Your task to perform on an android device: Do I have any events today? Image 0: 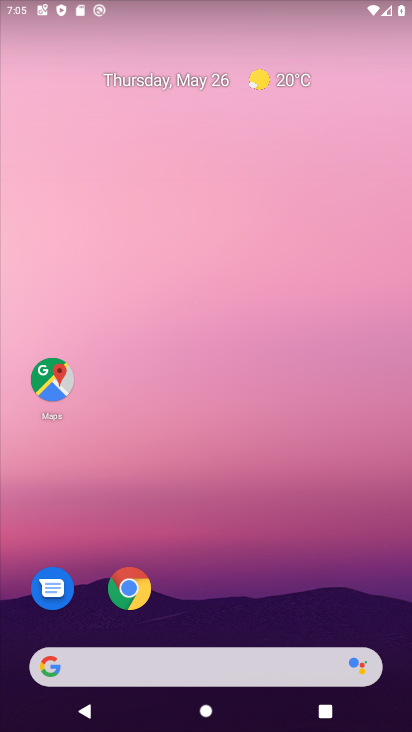
Step 0: drag from (349, 595) to (242, 29)
Your task to perform on an android device: Do I have any events today? Image 1: 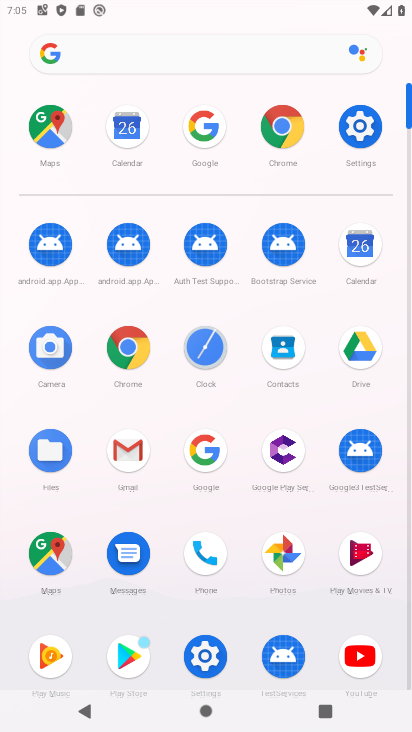
Step 1: click (355, 248)
Your task to perform on an android device: Do I have any events today? Image 2: 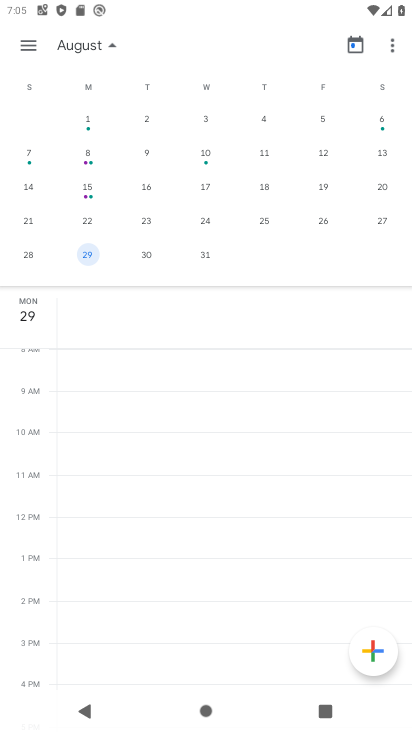
Step 2: task complete